Your task to perform on an android device: turn off wifi Image 0: 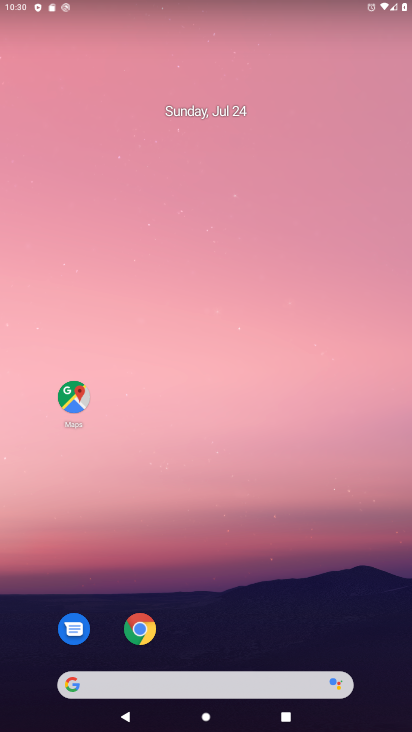
Step 0: drag from (211, 683) to (300, 72)
Your task to perform on an android device: turn off wifi Image 1: 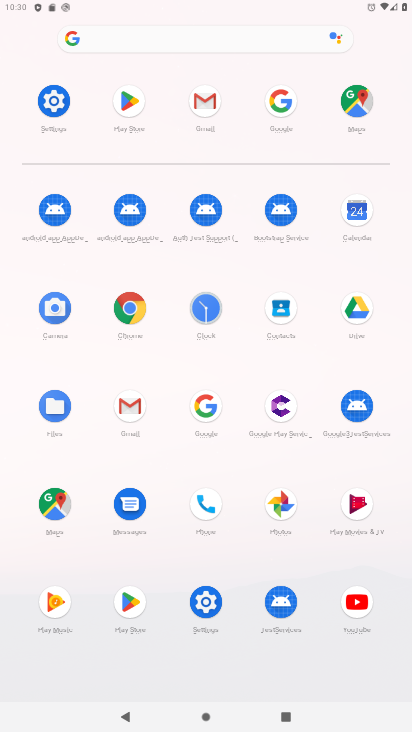
Step 1: click (54, 101)
Your task to perform on an android device: turn off wifi Image 2: 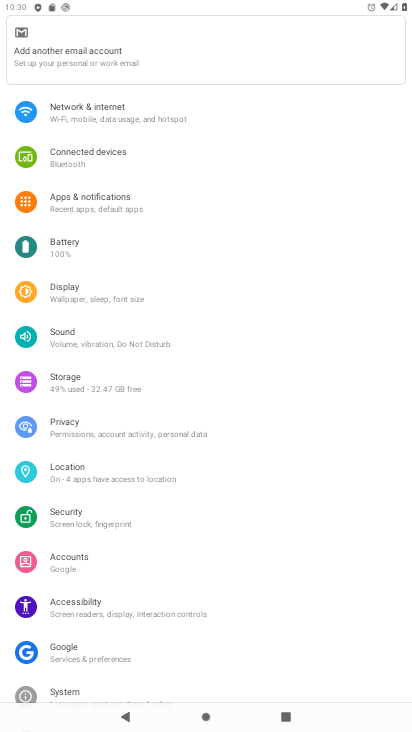
Step 2: click (133, 114)
Your task to perform on an android device: turn off wifi Image 3: 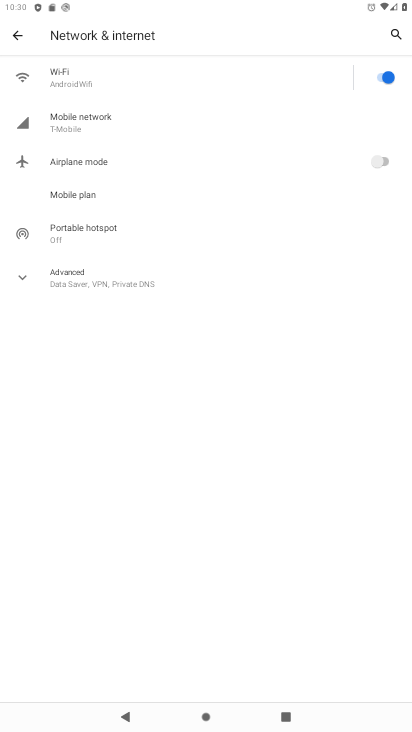
Step 3: click (385, 79)
Your task to perform on an android device: turn off wifi Image 4: 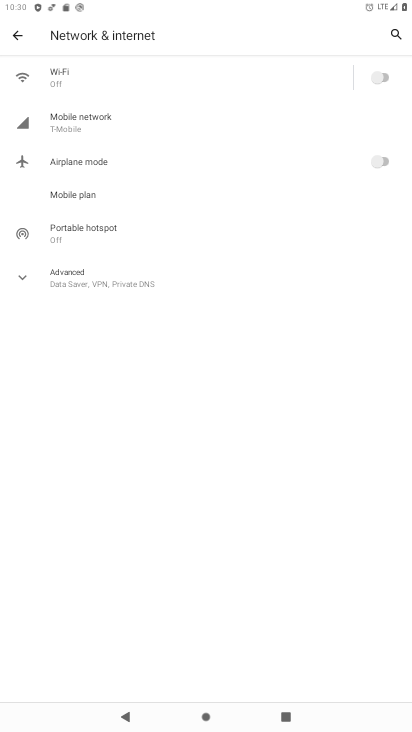
Step 4: task complete